Your task to perform on an android device: What's the weather like in San Francisco? Image 0: 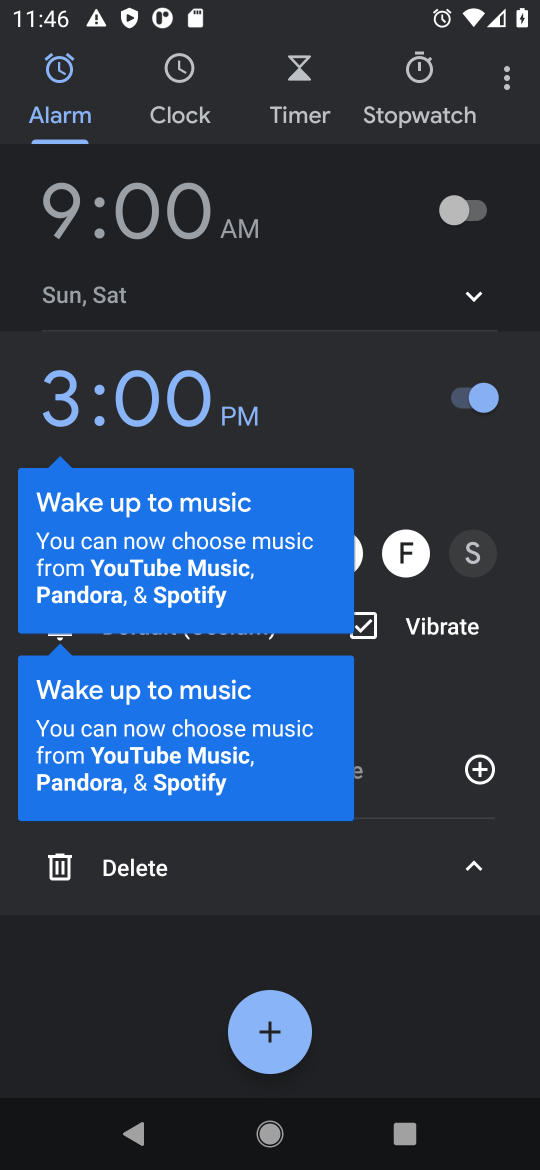
Step 0: press home button
Your task to perform on an android device: What's the weather like in San Francisco? Image 1: 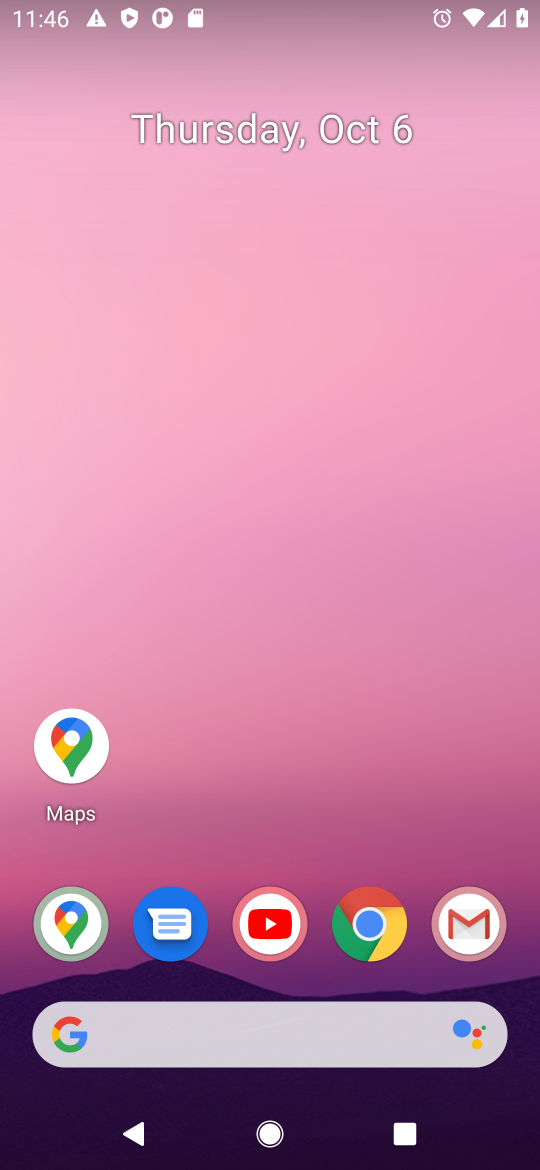
Step 1: click (378, 936)
Your task to perform on an android device: What's the weather like in San Francisco? Image 2: 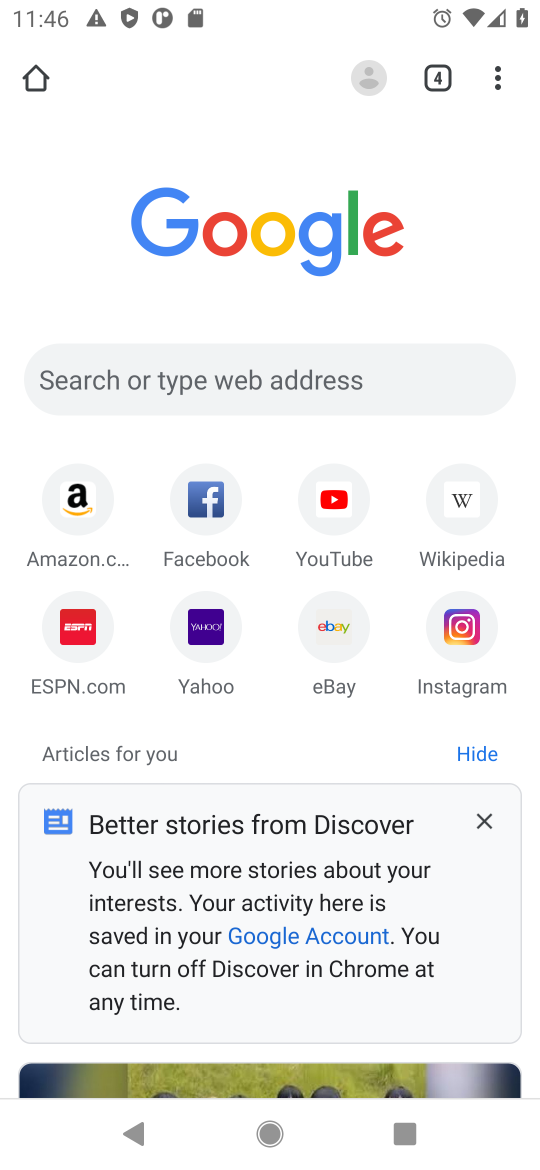
Step 2: click (170, 382)
Your task to perform on an android device: What's the weather like in San Francisco? Image 3: 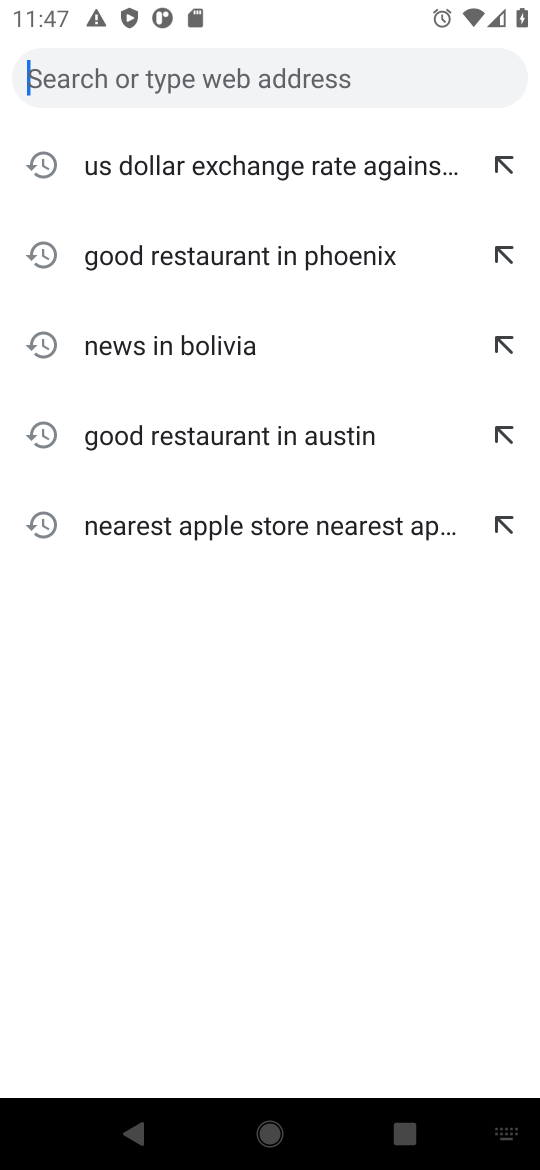
Step 3: type " weather like in San Francisco"
Your task to perform on an android device: What's the weather like in San Francisco? Image 4: 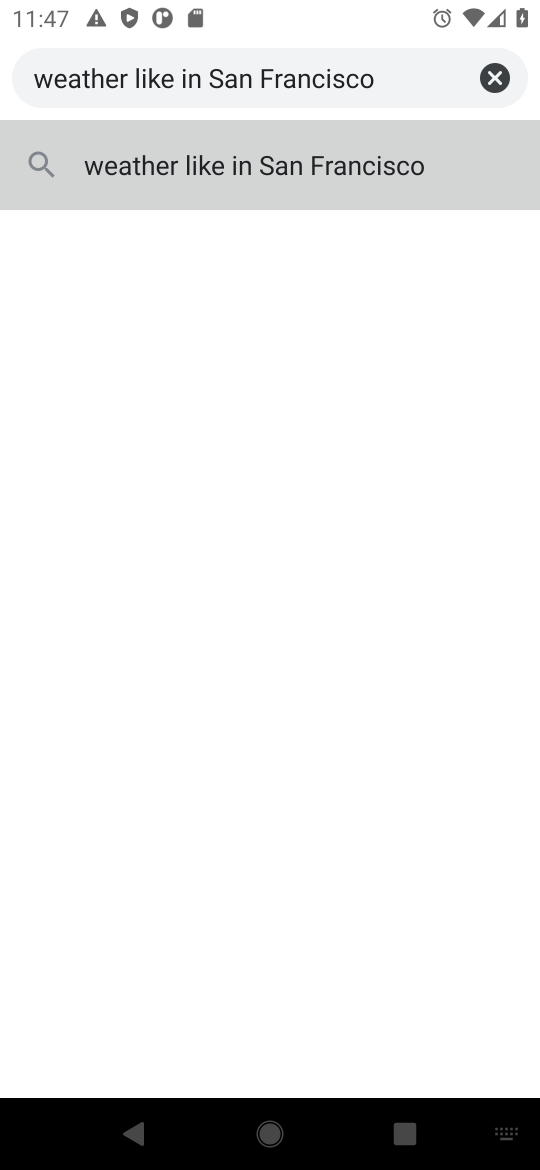
Step 4: click (357, 161)
Your task to perform on an android device: What's the weather like in San Francisco? Image 5: 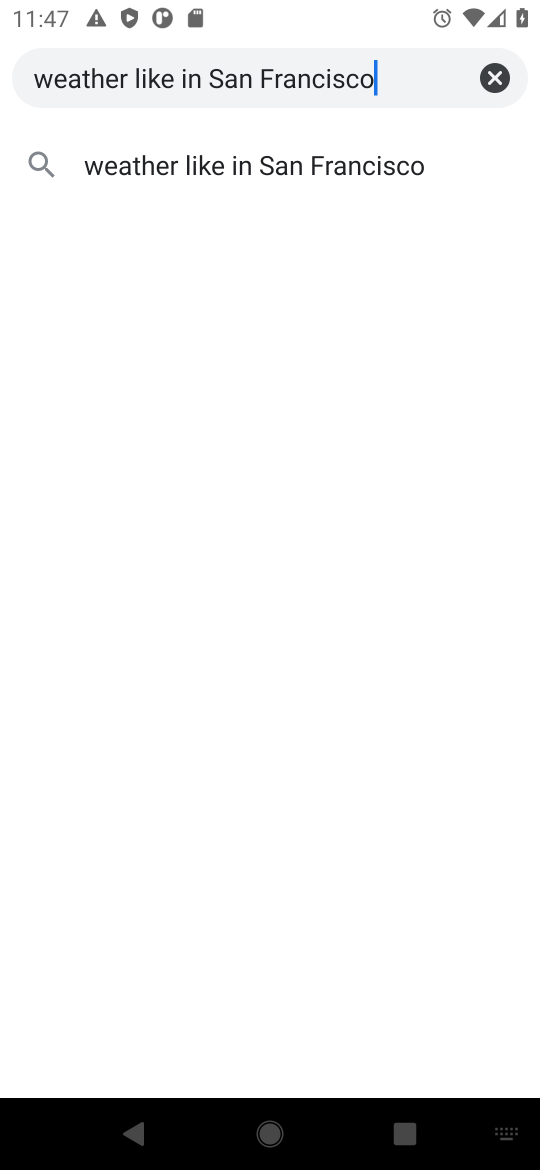
Step 5: click (135, 175)
Your task to perform on an android device: What's the weather like in San Francisco? Image 6: 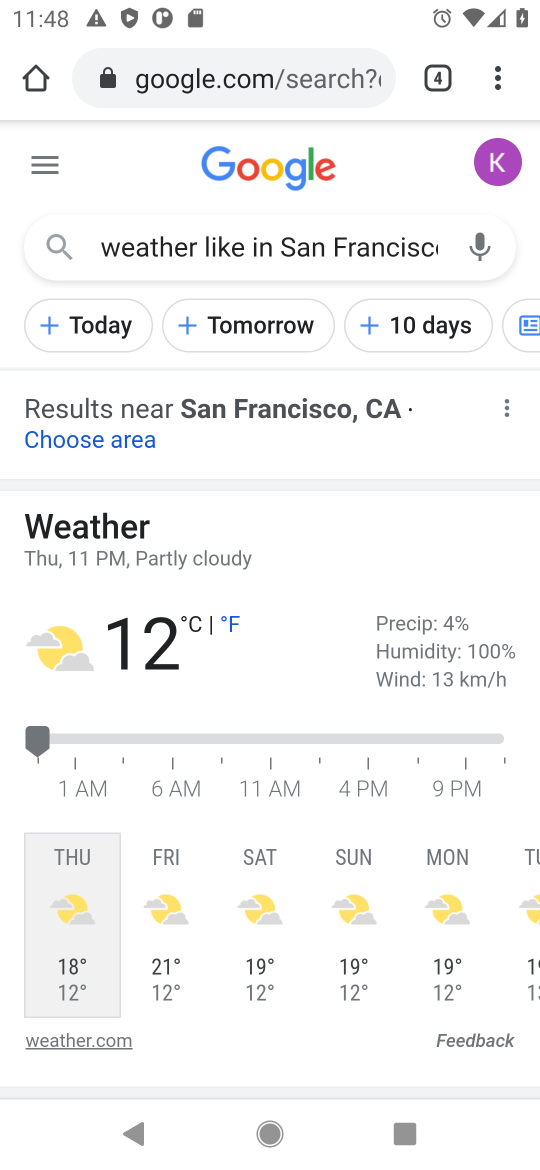
Step 6: task complete